Your task to perform on an android device: What's on my calendar today? Image 0: 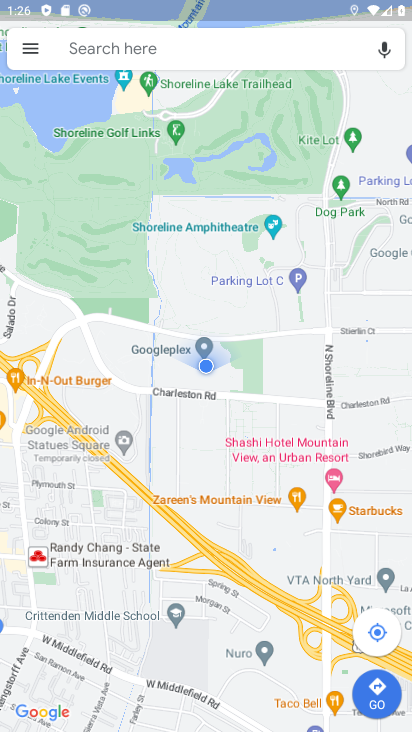
Step 0: press home button
Your task to perform on an android device: What's on my calendar today? Image 1: 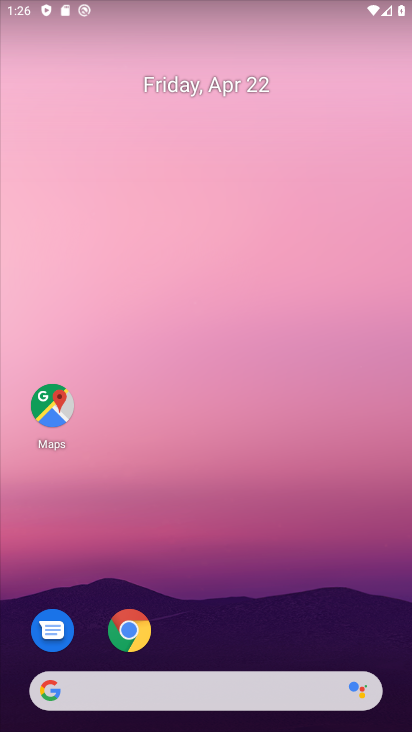
Step 1: drag from (213, 478) to (267, 49)
Your task to perform on an android device: What's on my calendar today? Image 2: 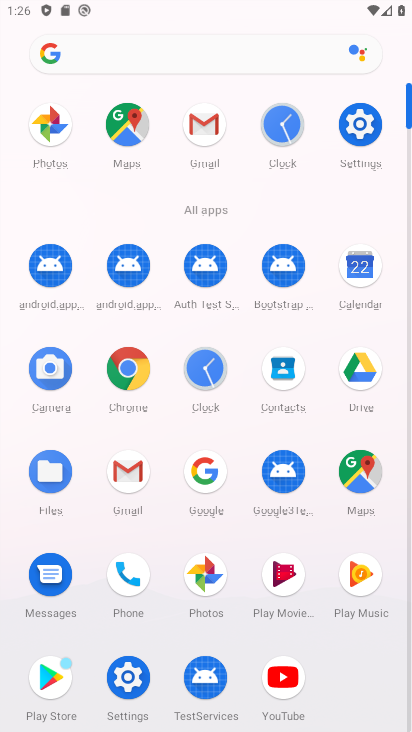
Step 2: click (351, 276)
Your task to perform on an android device: What's on my calendar today? Image 3: 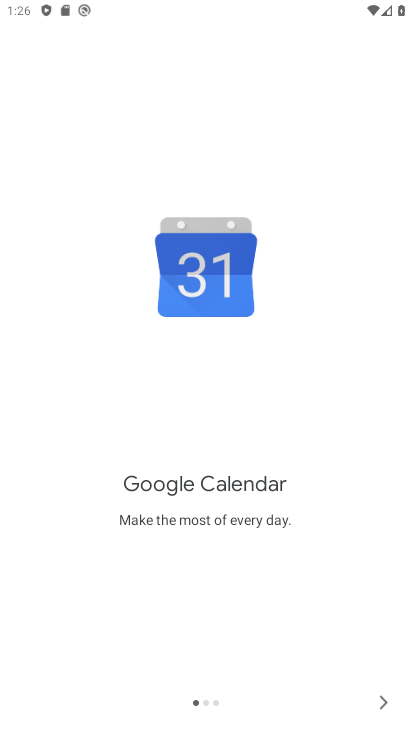
Step 3: click (387, 703)
Your task to perform on an android device: What's on my calendar today? Image 4: 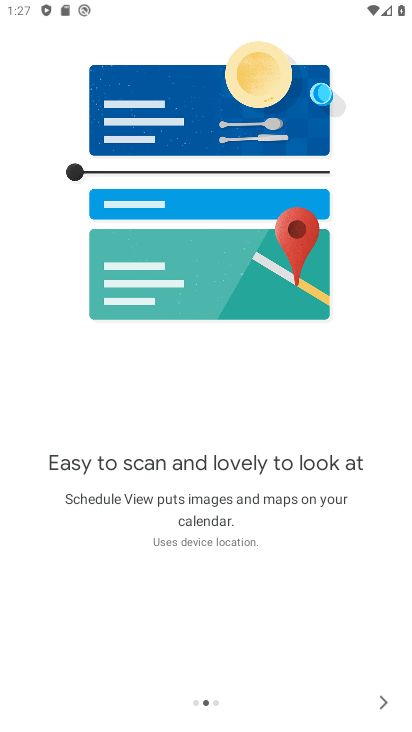
Step 4: click (379, 702)
Your task to perform on an android device: What's on my calendar today? Image 5: 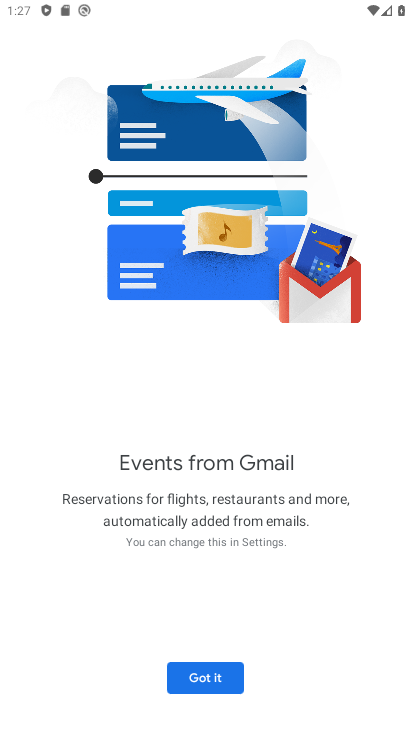
Step 5: click (235, 677)
Your task to perform on an android device: What's on my calendar today? Image 6: 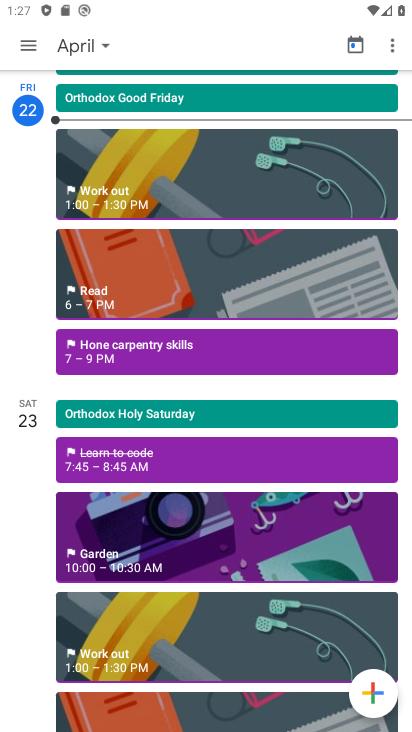
Step 6: click (31, 42)
Your task to perform on an android device: What's on my calendar today? Image 7: 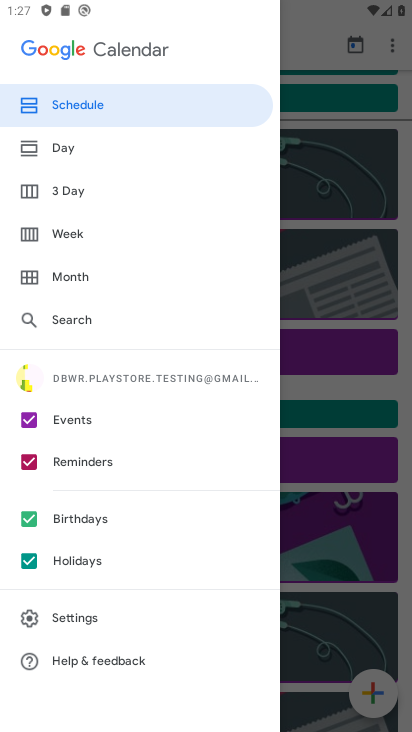
Step 7: task complete